Your task to perform on an android device: set the timer Image 0: 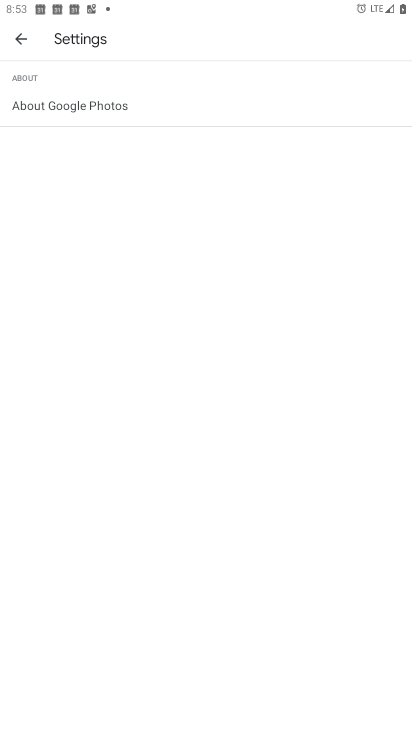
Step 0: press home button
Your task to perform on an android device: set the timer Image 1: 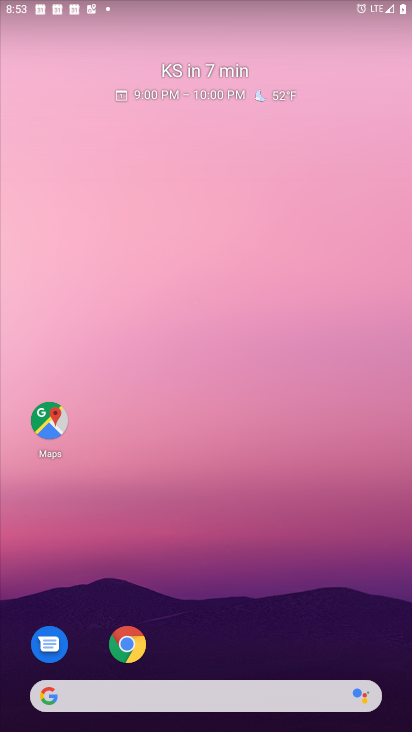
Step 1: drag from (379, 653) to (290, 222)
Your task to perform on an android device: set the timer Image 2: 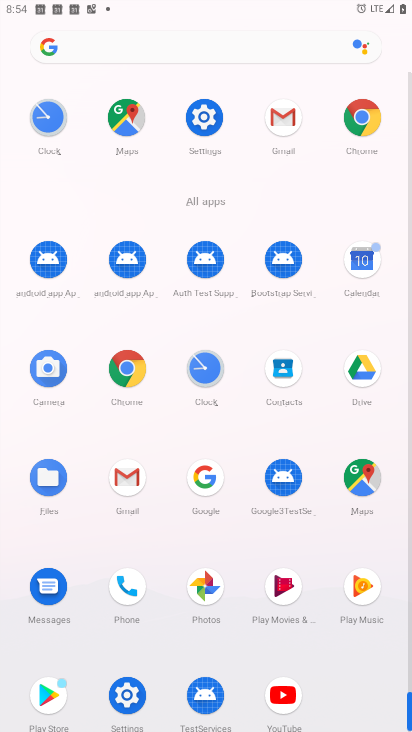
Step 2: click (204, 371)
Your task to perform on an android device: set the timer Image 3: 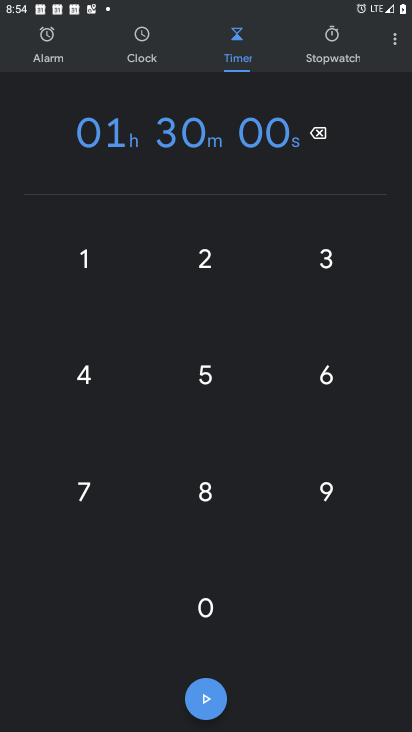
Step 3: task complete